Your task to perform on an android device: Open Google Chrome and click the shortcut for Amazon.com Image 0: 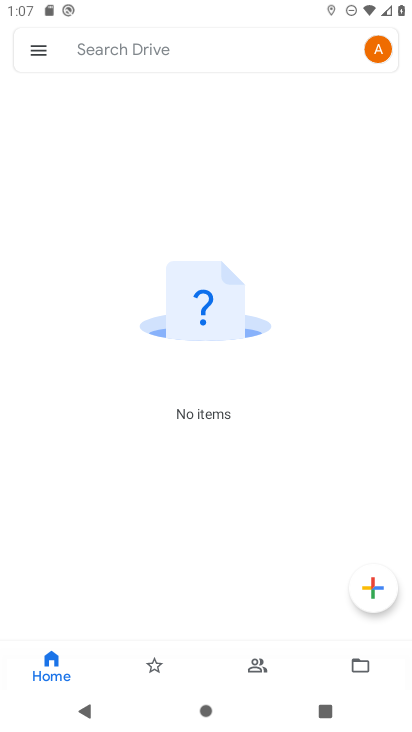
Step 0: press home button
Your task to perform on an android device: Open Google Chrome and click the shortcut for Amazon.com Image 1: 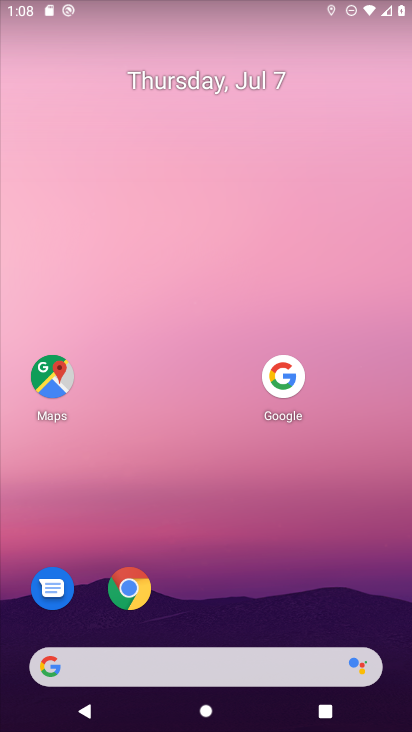
Step 1: click (133, 597)
Your task to perform on an android device: Open Google Chrome and click the shortcut for Amazon.com Image 2: 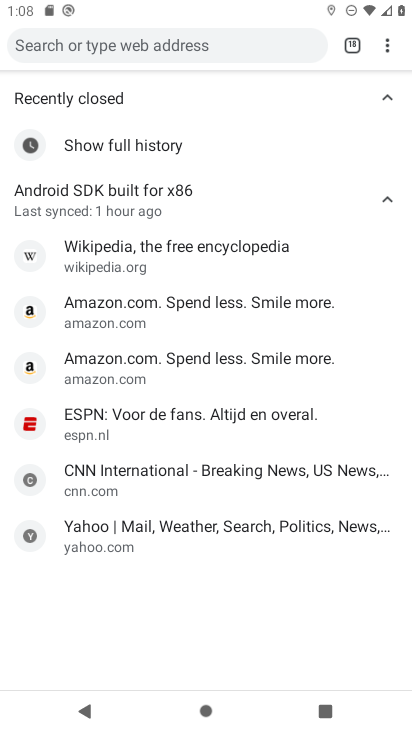
Step 2: drag from (387, 48) to (312, 89)
Your task to perform on an android device: Open Google Chrome and click the shortcut for Amazon.com Image 3: 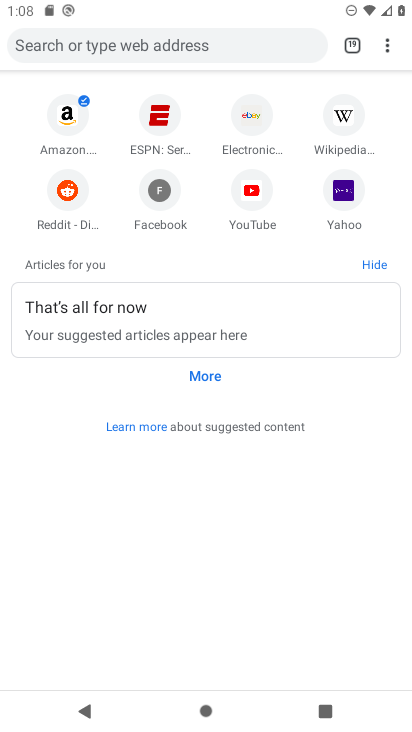
Step 3: click (64, 120)
Your task to perform on an android device: Open Google Chrome and click the shortcut for Amazon.com Image 4: 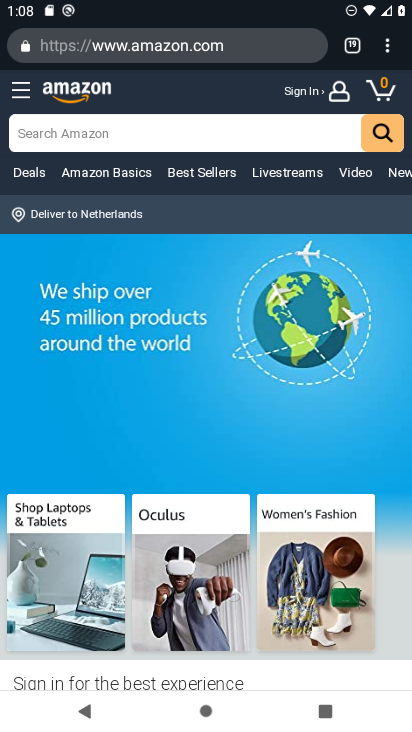
Step 4: task complete